Your task to perform on an android device: Search for flights from Mexico city to Sydney Image 0: 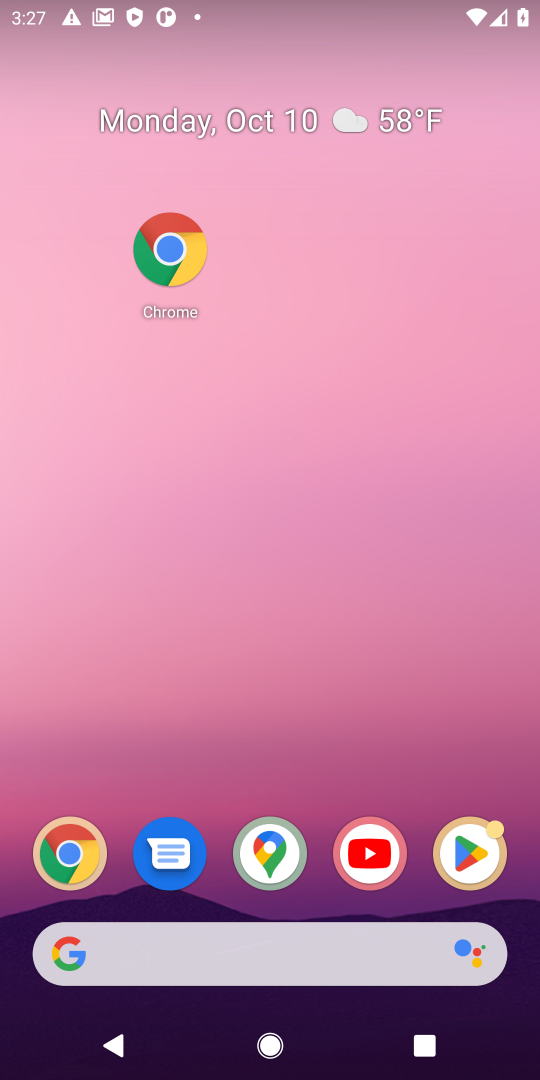
Step 0: click (69, 850)
Your task to perform on an android device: Search for flights from Mexico city to Sydney Image 1: 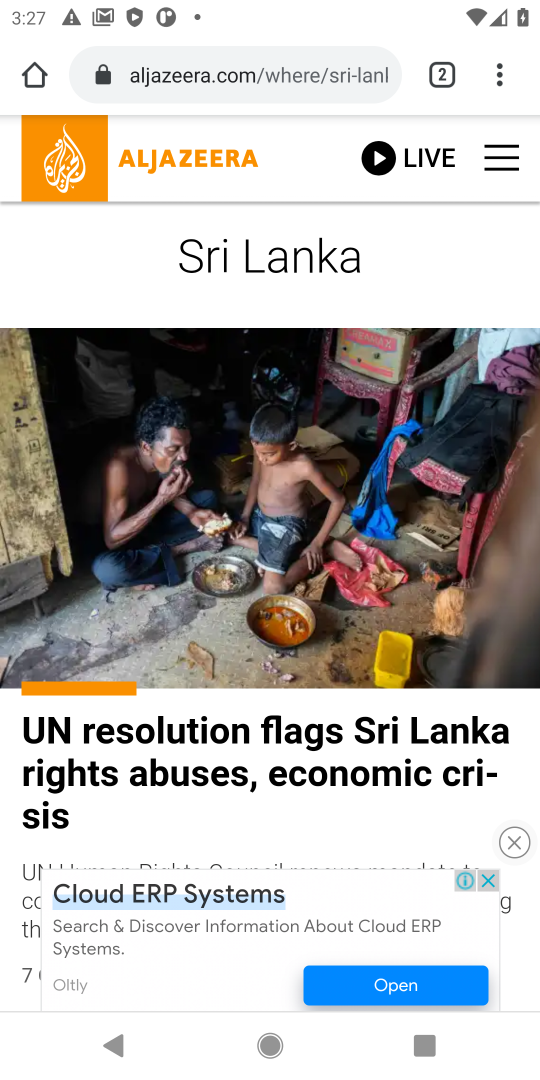
Step 1: click (267, 68)
Your task to perform on an android device: Search for flights from Mexico city to Sydney Image 2: 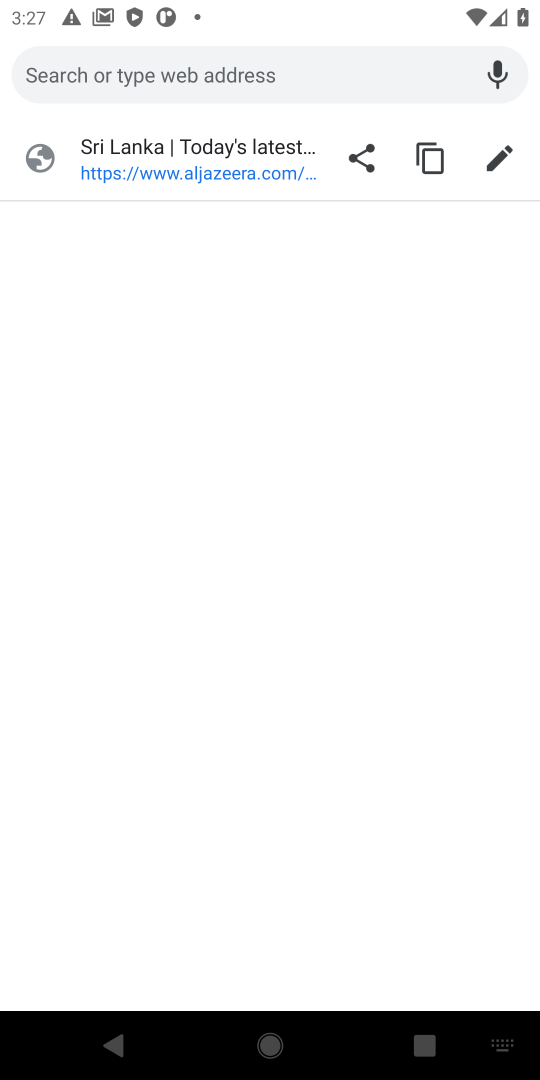
Step 2: type "flights from Mexico city to Sydney"
Your task to perform on an android device: Search for flights from Mexico city to Sydney Image 3: 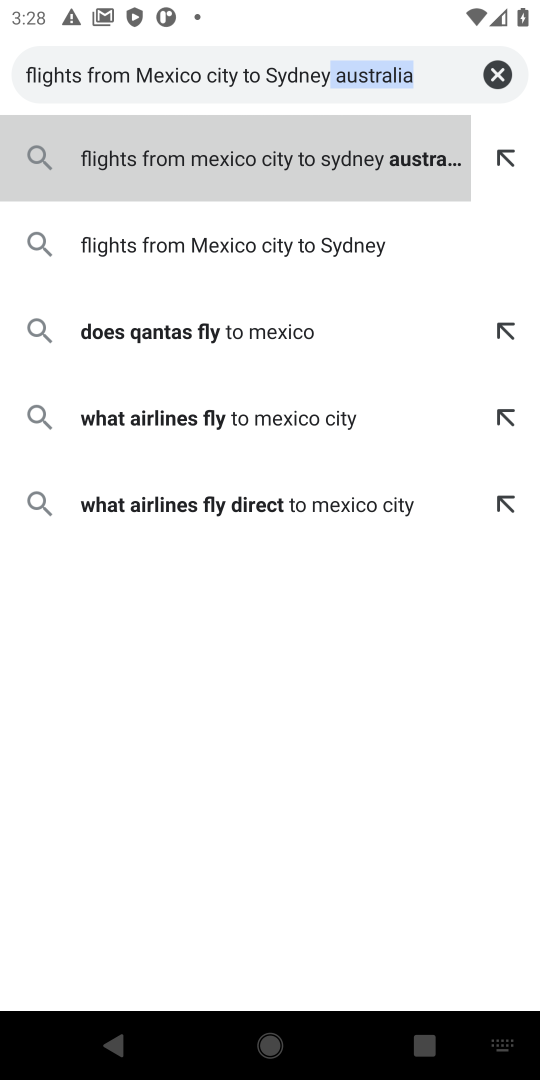
Step 3: click (181, 176)
Your task to perform on an android device: Search for flights from Mexico city to Sydney Image 4: 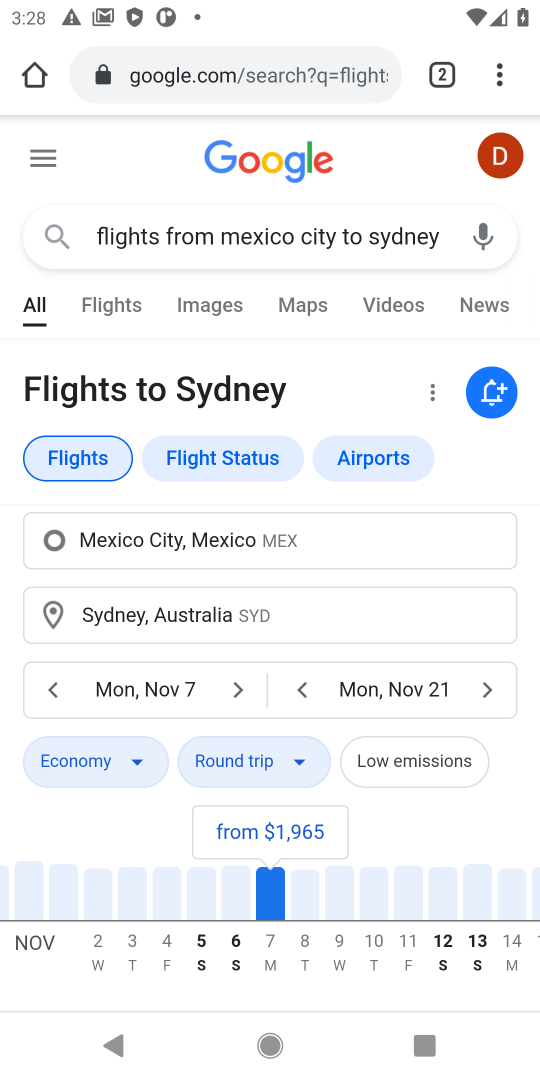
Step 4: task complete